Your task to perform on an android device: choose inbox layout in the gmail app Image 0: 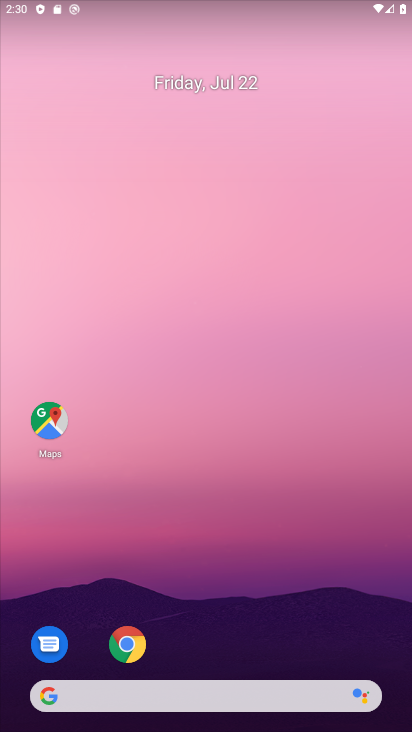
Step 0: press home button
Your task to perform on an android device: choose inbox layout in the gmail app Image 1: 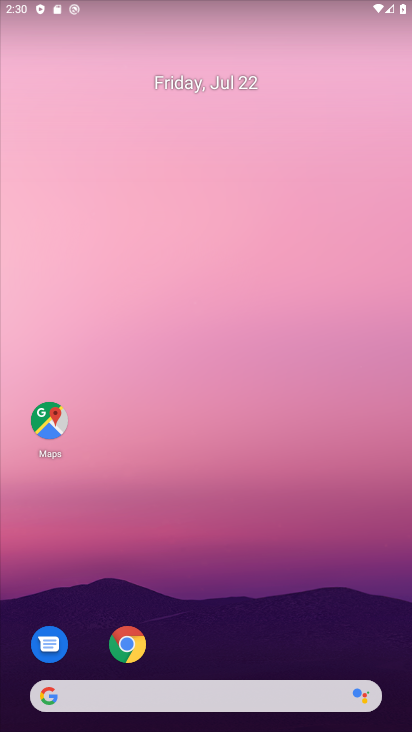
Step 1: press home button
Your task to perform on an android device: choose inbox layout in the gmail app Image 2: 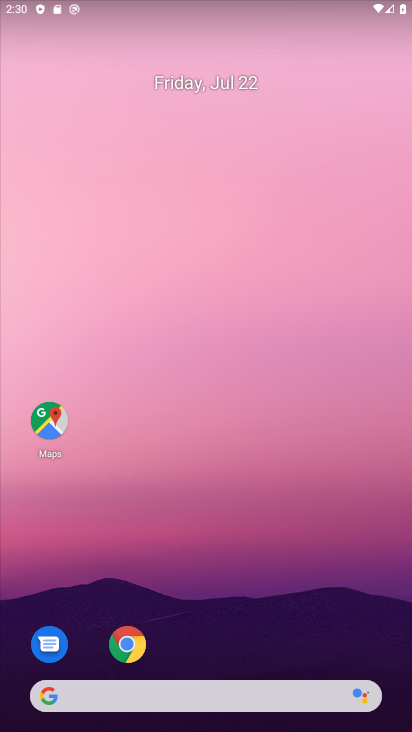
Step 2: drag from (234, 657) to (256, 227)
Your task to perform on an android device: choose inbox layout in the gmail app Image 3: 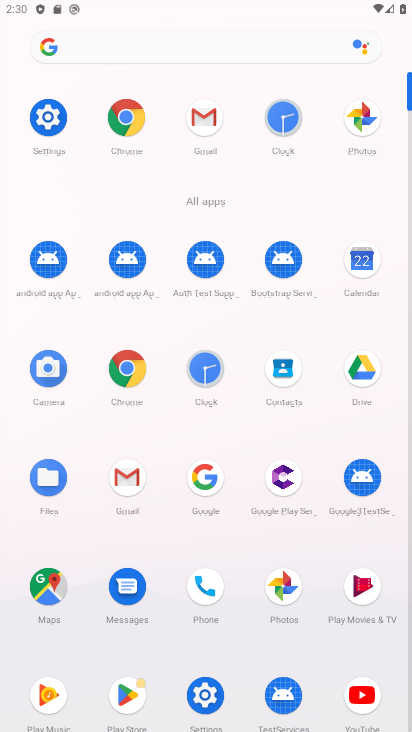
Step 3: click (212, 117)
Your task to perform on an android device: choose inbox layout in the gmail app Image 4: 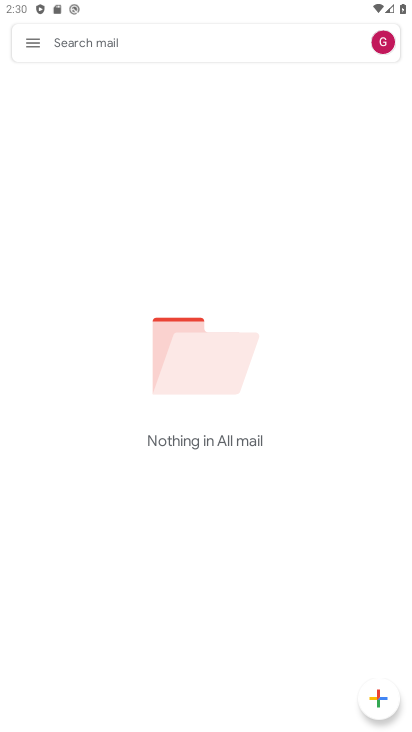
Step 4: click (15, 42)
Your task to perform on an android device: choose inbox layout in the gmail app Image 5: 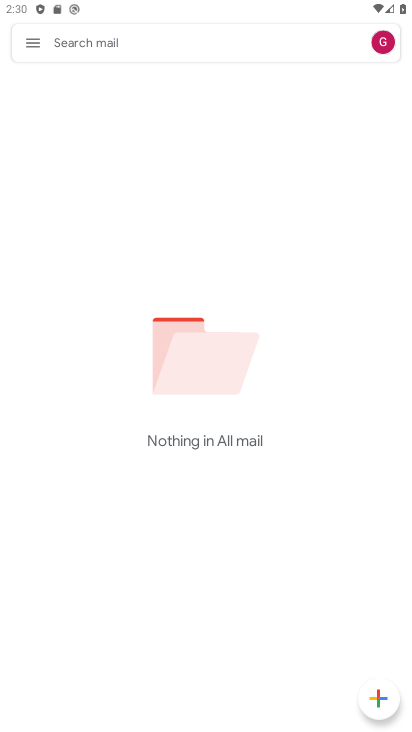
Step 5: click (25, 44)
Your task to perform on an android device: choose inbox layout in the gmail app Image 6: 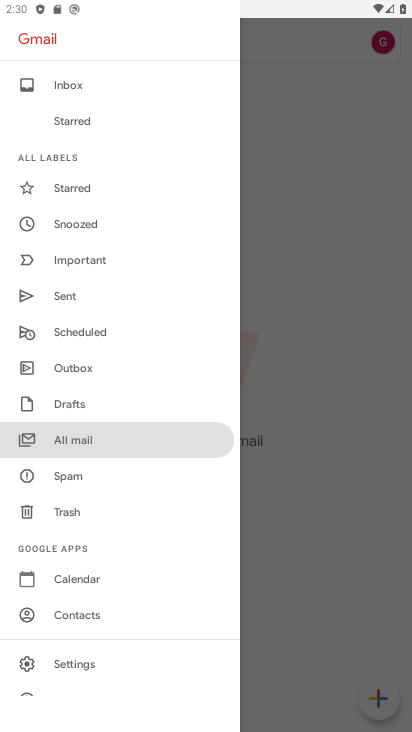
Step 6: click (73, 666)
Your task to perform on an android device: choose inbox layout in the gmail app Image 7: 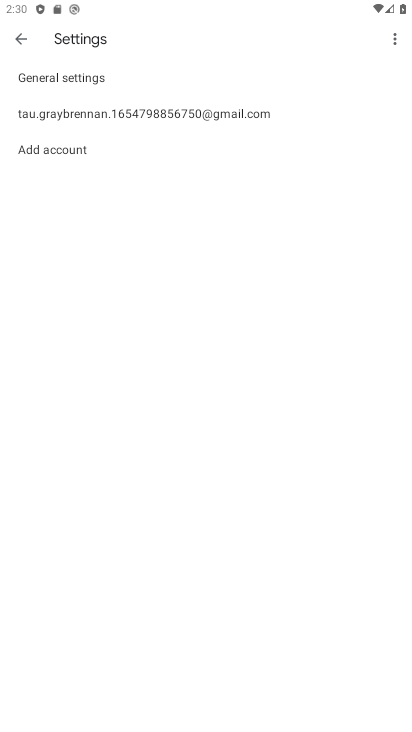
Step 7: click (127, 116)
Your task to perform on an android device: choose inbox layout in the gmail app Image 8: 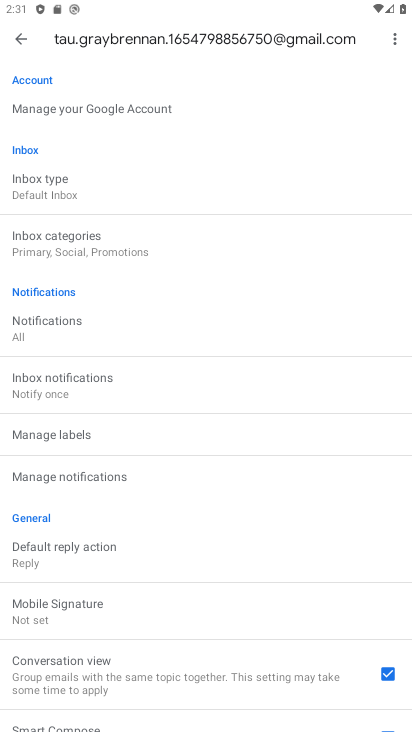
Step 8: click (30, 190)
Your task to perform on an android device: choose inbox layout in the gmail app Image 9: 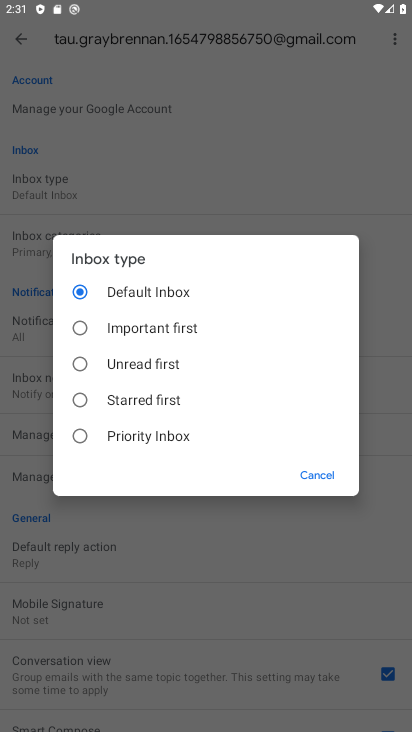
Step 9: click (87, 323)
Your task to perform on an android device: choose inbox layout in the gmail app Image 10: 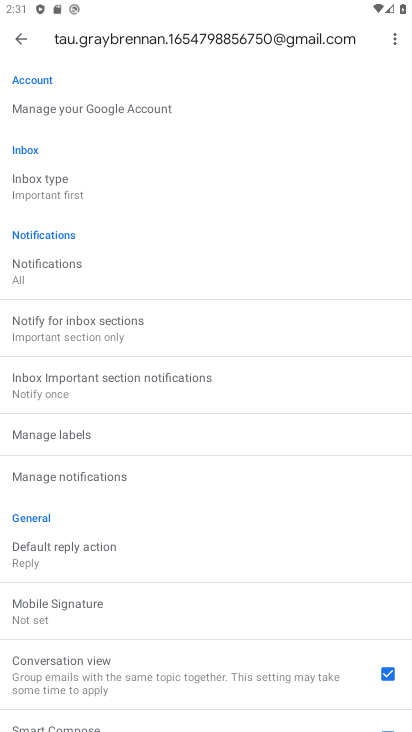
Step 10: task complete